Your task to perform on an android device: open device folders in google photos Image 0: 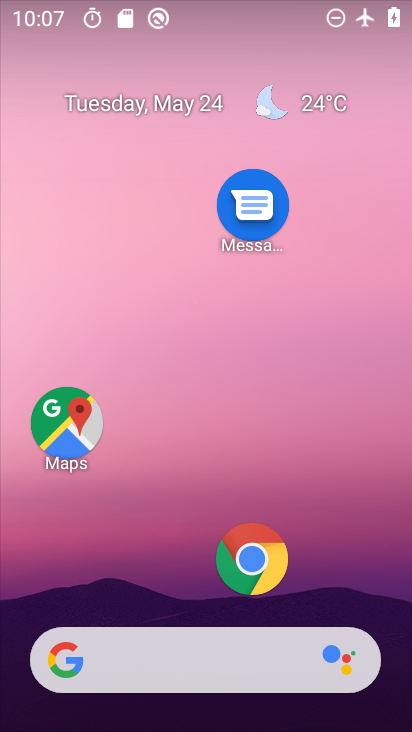
Step 0: drag from (186, 593) to (157, 222)
Your task to perform on an android device: open device folders in google photos Image 1: 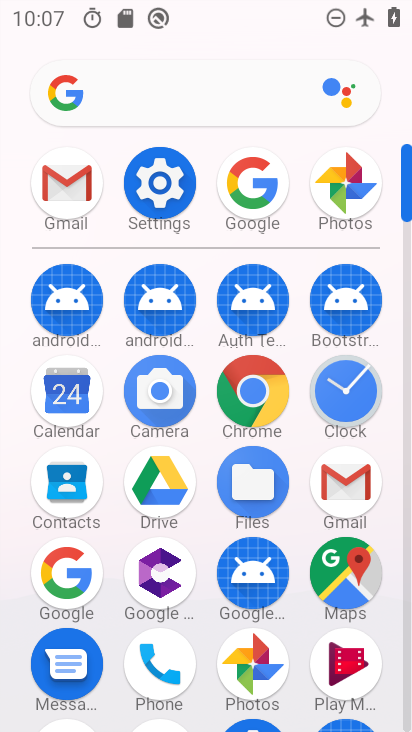
Step 1: click (331, 177)
Your task to perform on an android device: open device folders in google photos Image 2: 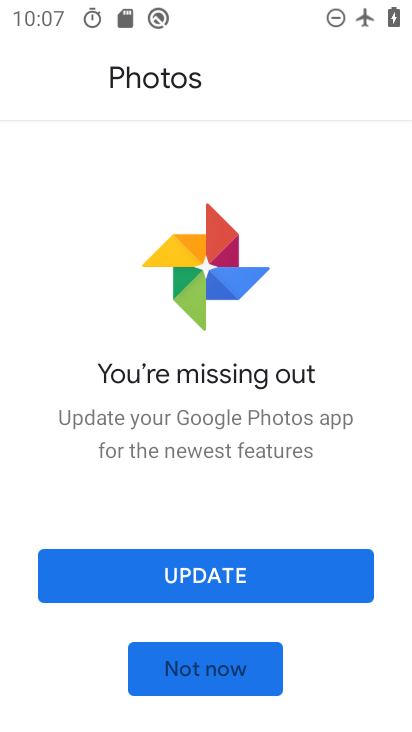
Step 2: click (214, 657)
Your task to perform on an android device: open device folders in google photos Image 3: 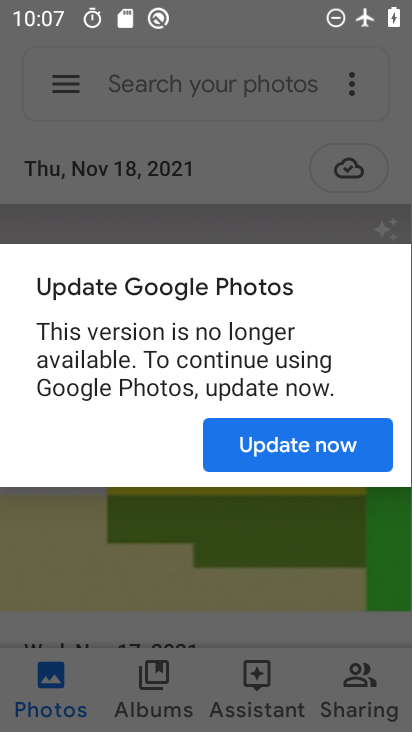
Step 3: click (266, 429)
Your task to perform on an android device: open device folders in google photos Image 4: 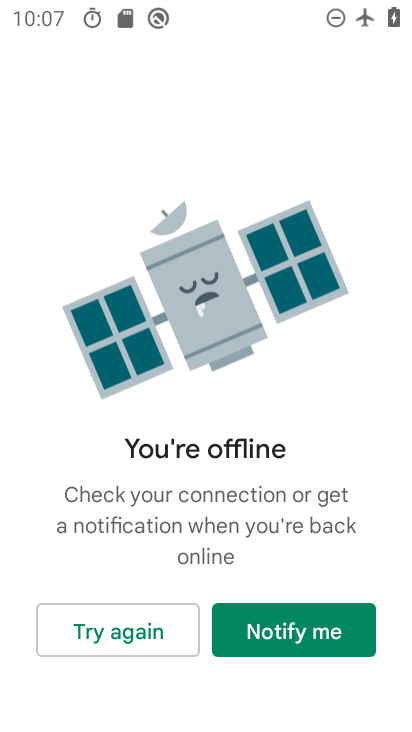
Step 4: press back button
Your task to perform on an android device: open device folders in google photos Image 5: 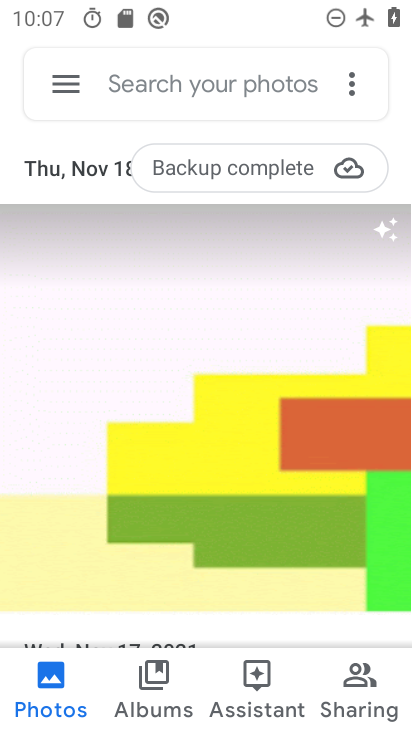
Step 5: click (47, 98)
Your task to perform on an android device: open device folders in google photos Image 6: 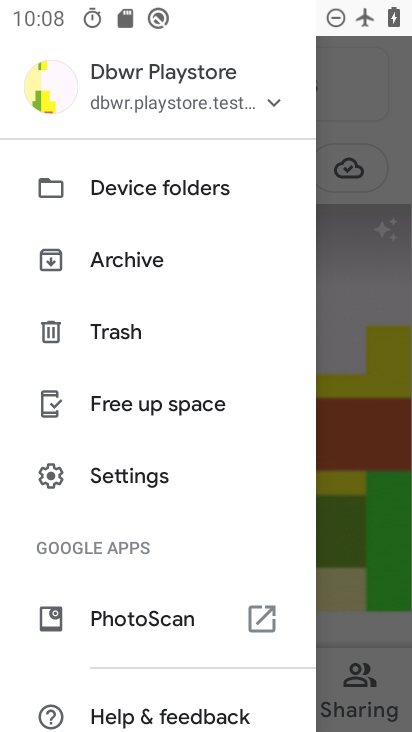
Step 6: click (91, 186)
Your task to perform on an android device: open device folders in google photos Image 7: 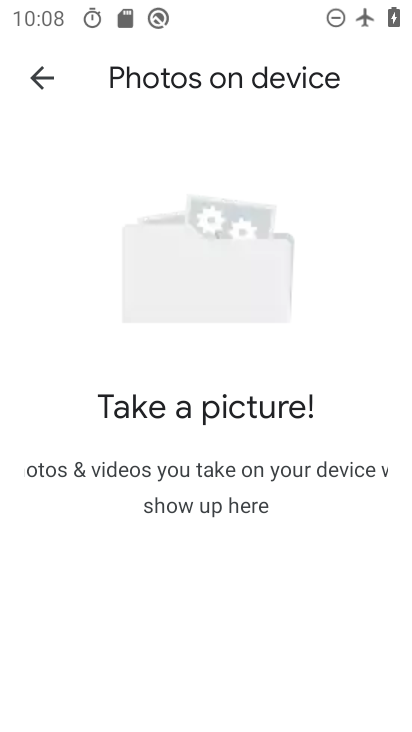
Step 7: task complete